Your task to perform on an android device: toggle show notifications on the lock screen Image 0: 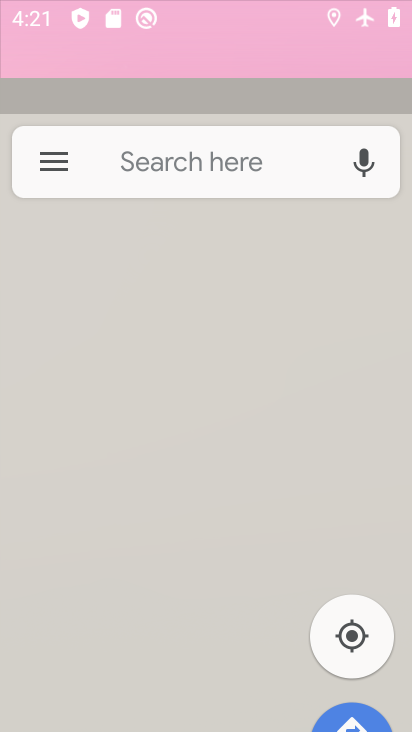
Step 0: drag from (300, 295) to (254, 6)
Your task to perform on an android device: toggle show notifications on the lock screen Image 1: 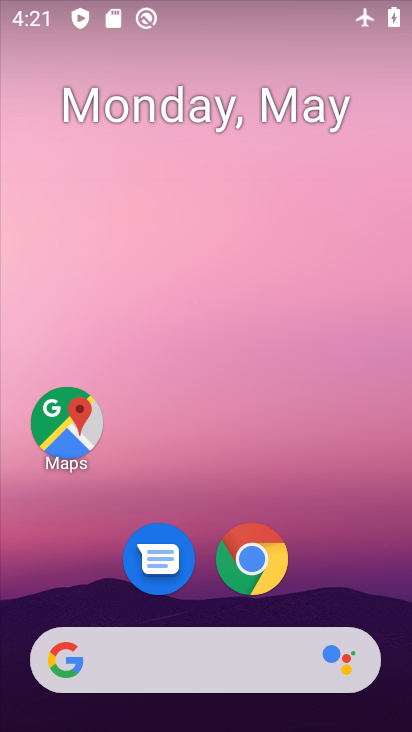
Step 1: drag from (11, 670) to (7, 86)
Your task to perform on an android device: toggle show notifications on the lock screen Image 2: 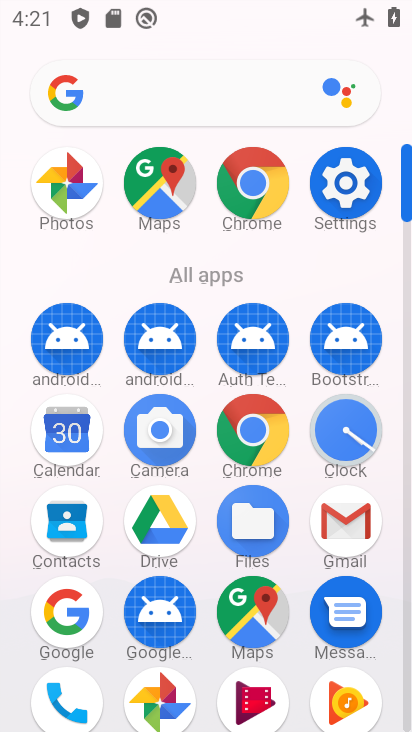
Step 2: click (344, 175)
Your task to perform on an android device: toggle show notifications on the lock screen Image 3: 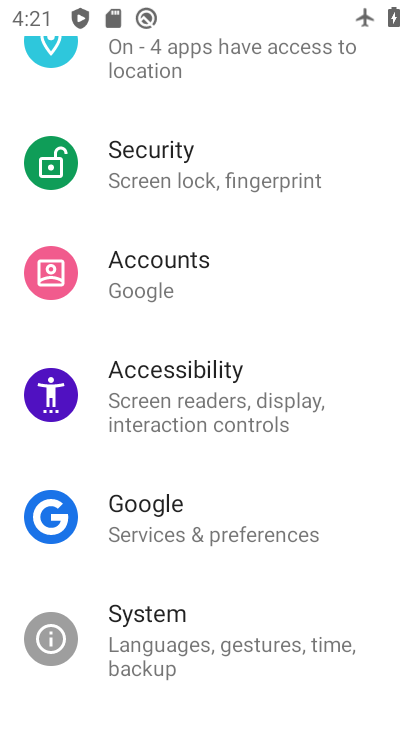
Step 3: drag from (283, 130) to (312, 570)
Your task to perform on an android device: toggle show notifications on the lock screen Image 4: 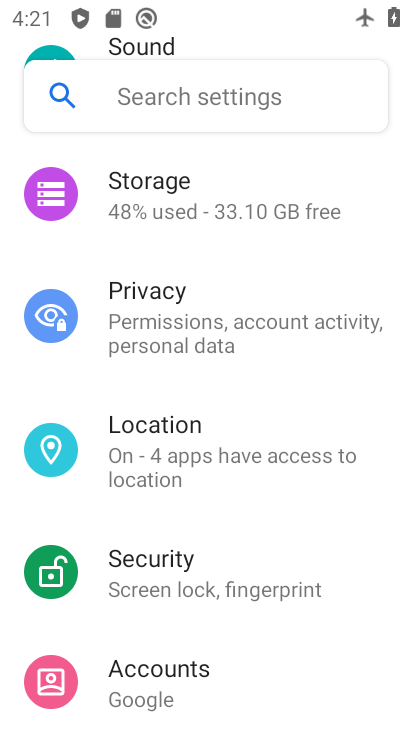
Step 4: drag from (303, 264) to (321, 626)
Your task to perform on an android device: toggle show notifications on the lock screen Image 5: 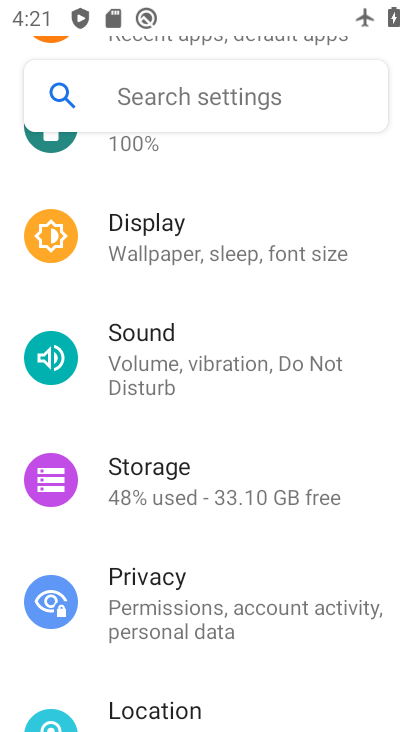
Step 5: drag from (271, 244) to (248, 618)
Your task to perform on an android device: toggle show notifications on the lock screen Image 6: 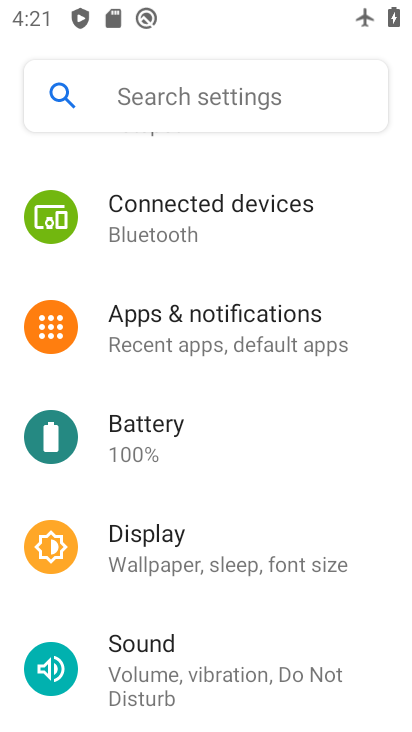
Step 6: drag from (245, 247) to (247, 630)
Your task to perform on an android device: toggle show notifications on the lock screen Image 7: 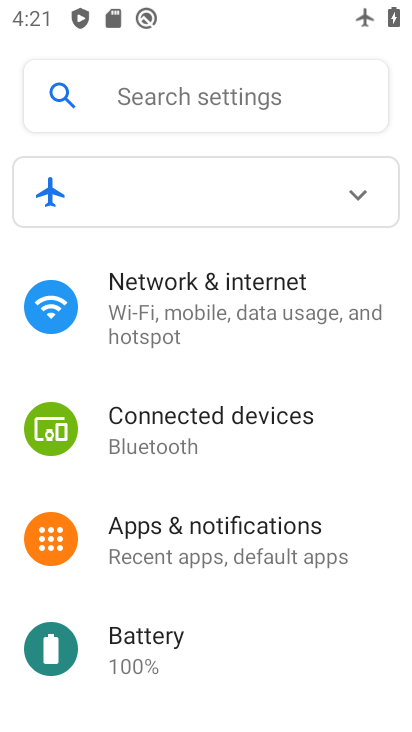
Step 7: click (205, 548)
Your task to perform on an android device: toggle show notifications on the lock screen Image 8: 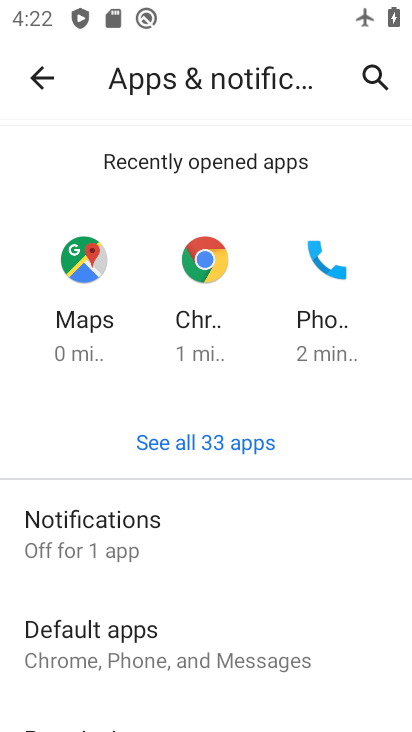
Step 8: click (185, 530)
Your task to perform on an android device: toggle show notifications on the lock screen Image 9: 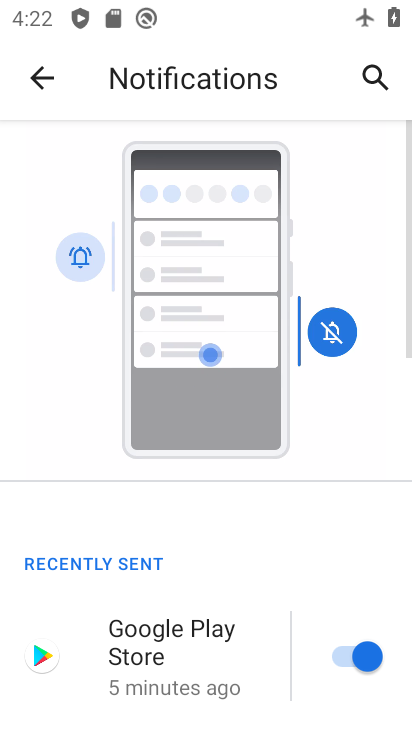
Step 9: drag from (222, 572) to (220, 188)
Your task to perform on an android device: toggle show notifications on the lock screen Image 10: 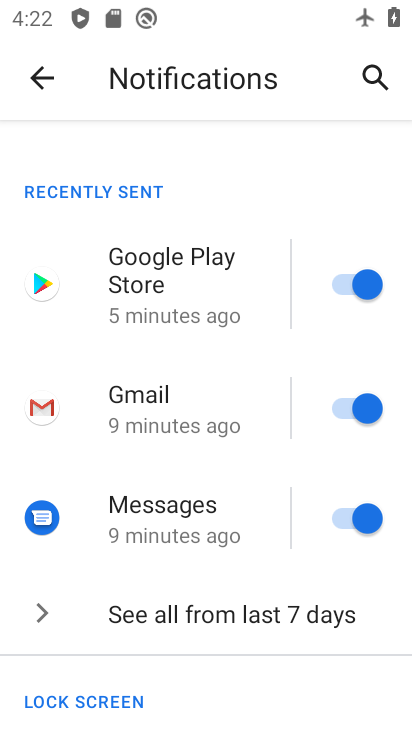
Step 10: drag from (190, 637) to (216, 171)
Your task to perform on an android device: toggle show notifications on the lock screen Image 11: 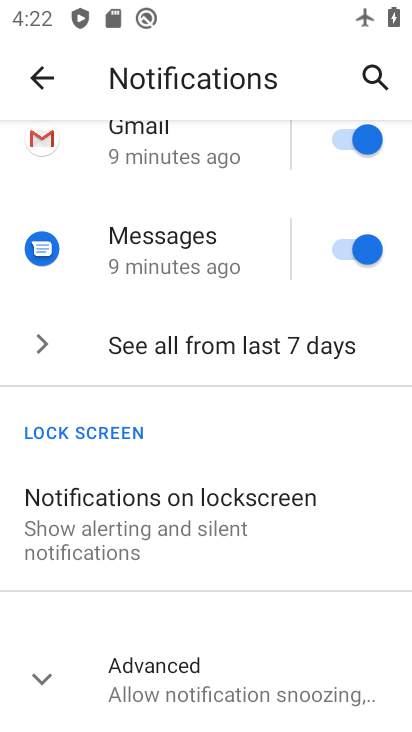
Step 11: click (139, 547)
Your task to perform on an android device: toggle show notifications on the lock screen Image 12: 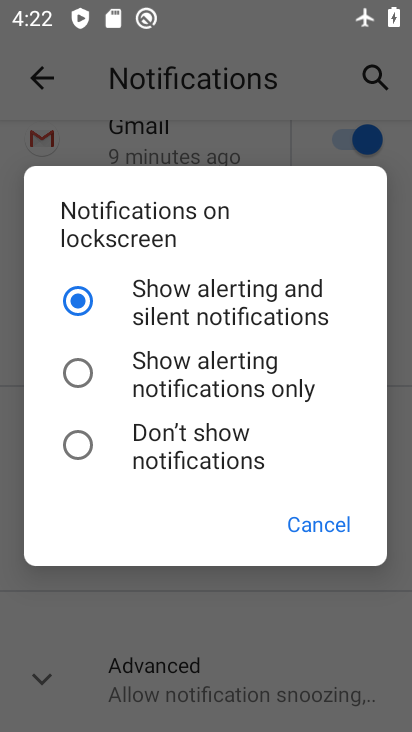
Step 12: click (133, 359)
Your task to perform on an android device: toggle show notifications on the lock screen Image 13: 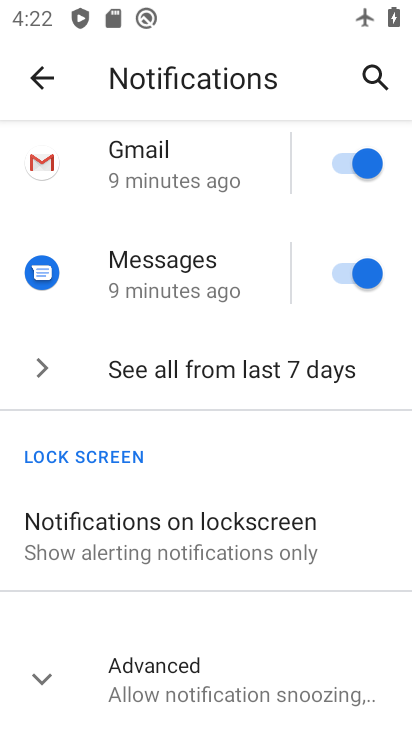
Step 13: drag from (228, 585) to (219, 228)
Your task to perform on an android device: toggle show notifications on the lock screen Image 14: 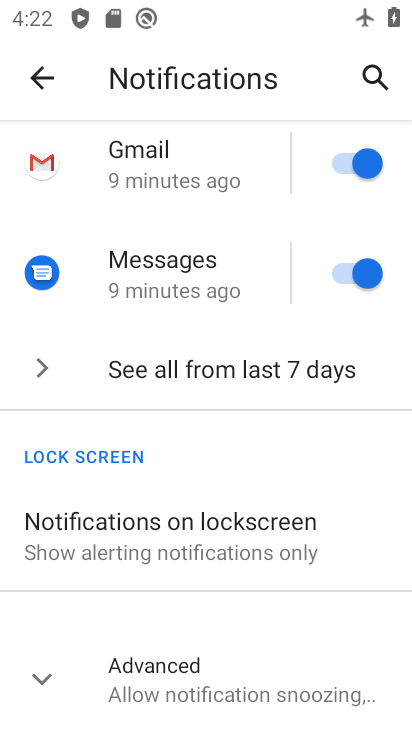
Step 14: click (35, 682)
Your task to perform on an android device: toggle show notifications on the lock screen Image 15: 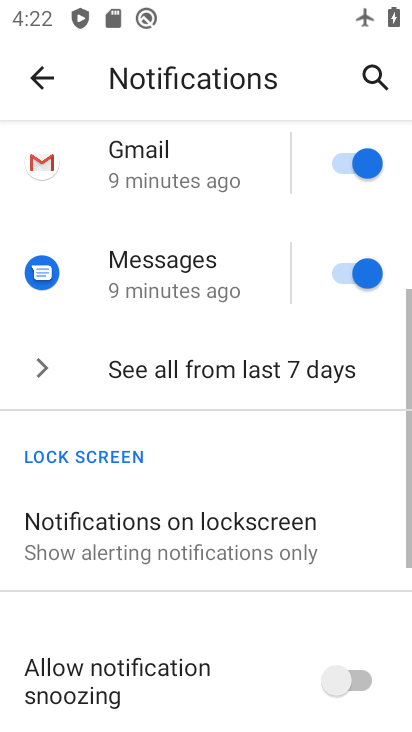
Step 15: task complete